Your task to perform on an android device: Open settings Image 0: 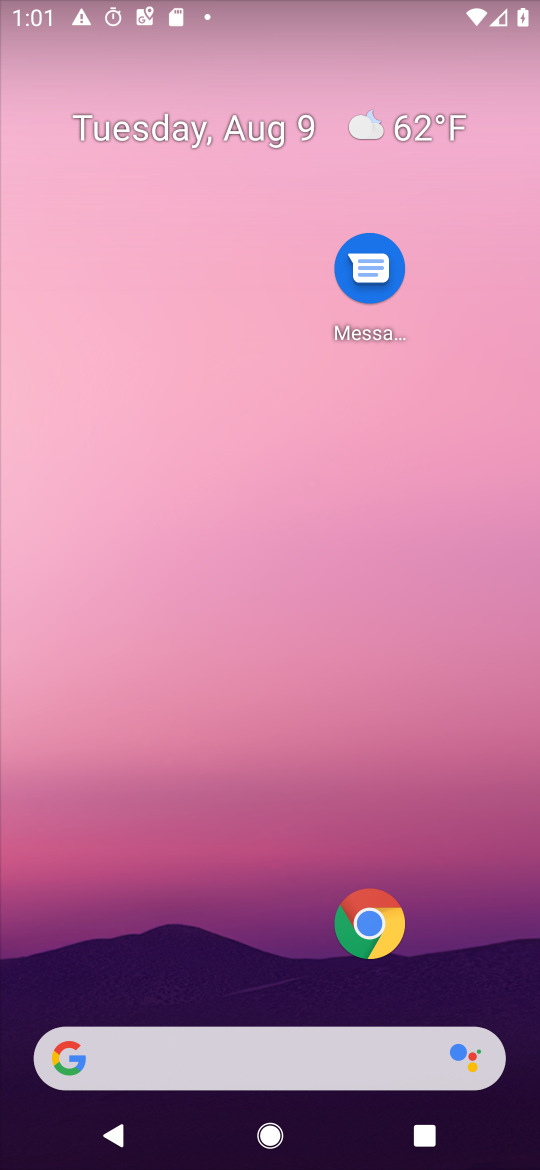
Step 0: drag from (29, 1136) to (282, 419)
Your task to perform on an android device: Open settings Image 1: 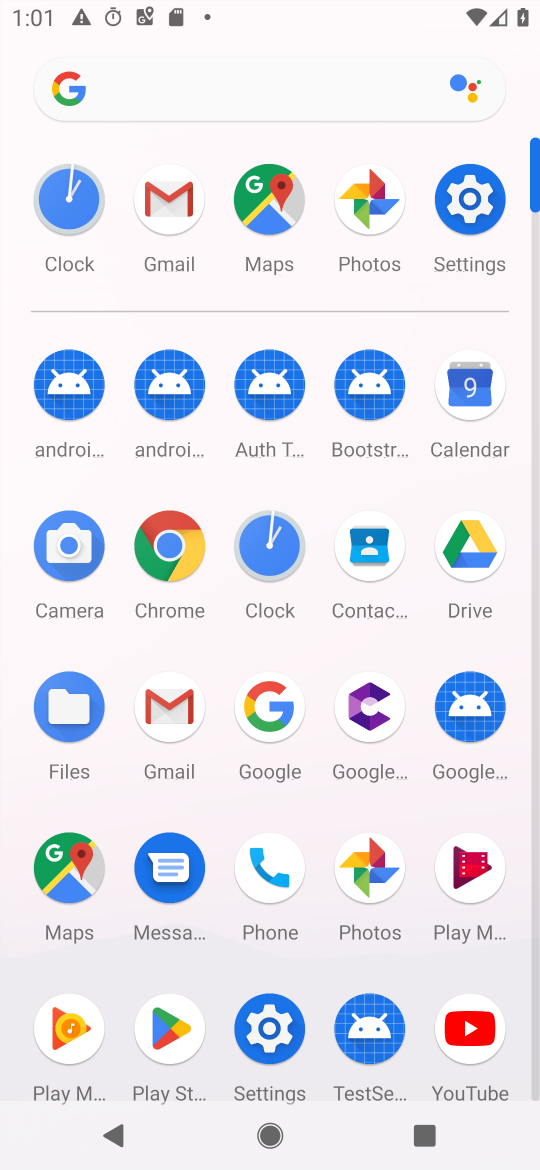
Step 1: click (278, 1023)
Your task to perform on an android device: Open settings Image 2: 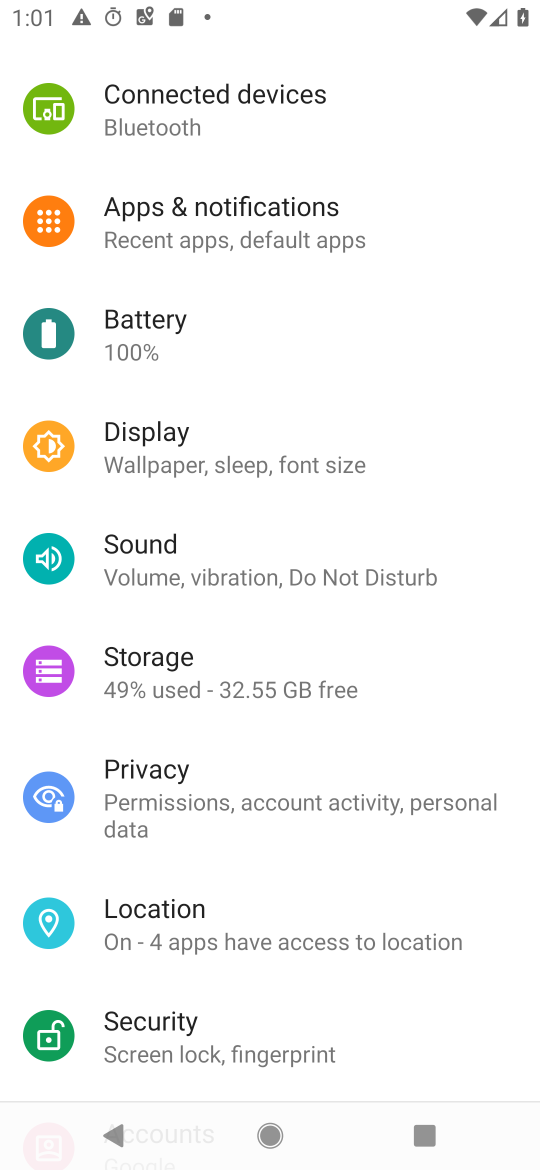
Step 2: task complete